Your task to perform on an android device: Open Google Maps Image 0: 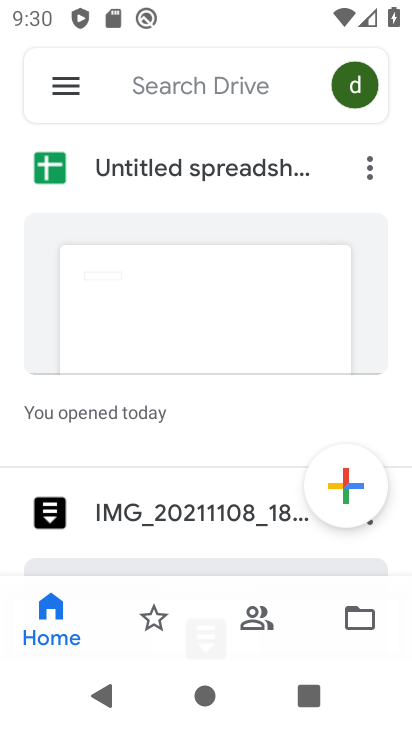
Step 0: press home button
Your task to perform on an android device: Open Google Maps Image 1: 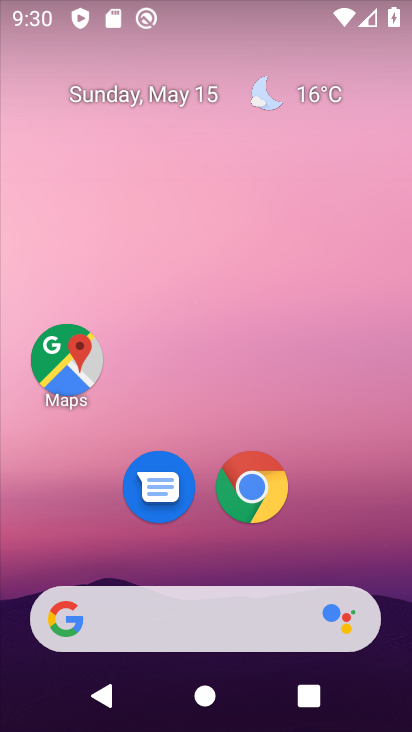
Step 1: click (63, 360)
Your task to perform on an android device: Open Google Maps Image 2: 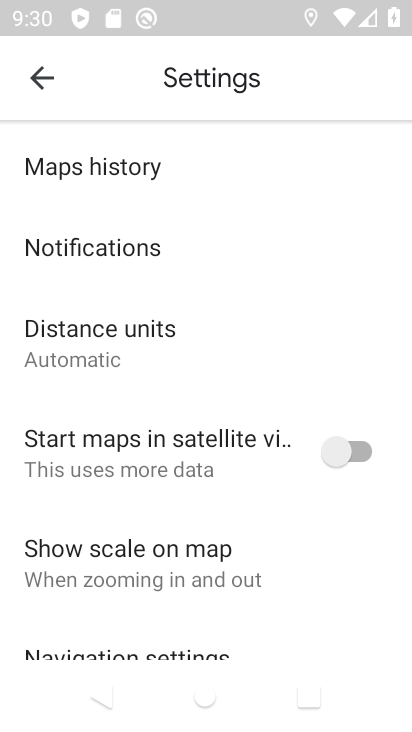
Step 2: task complete